Your task to perform on an android device: set the timer Image 0: 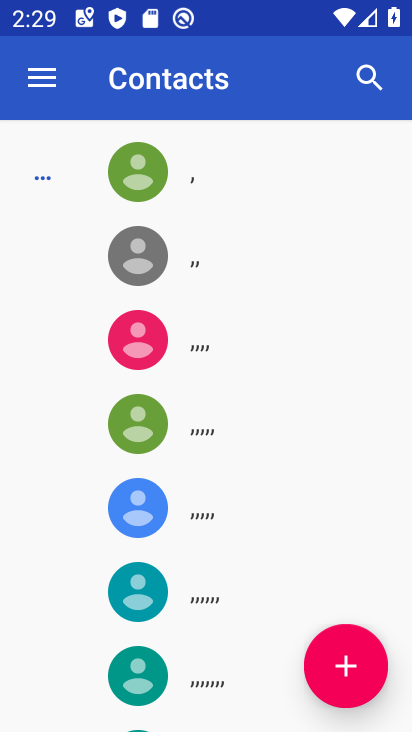
Step 0: press home button
Your task to perform on an android device: set the timer Image 1: 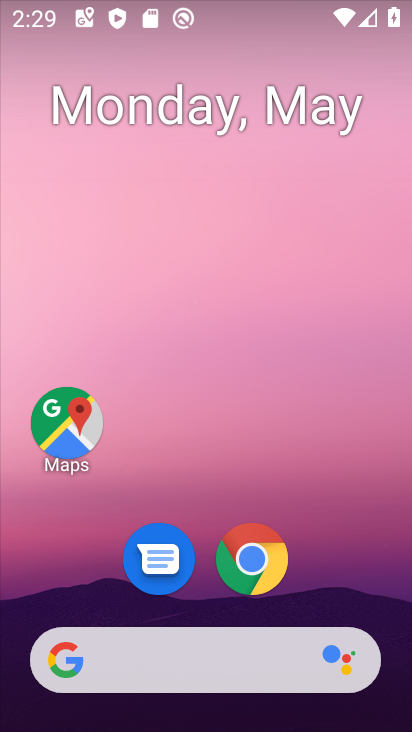
Step 1: drag from (233, 722) to (322, 108)
Your task to perform on an android device: set the timer Image 2: 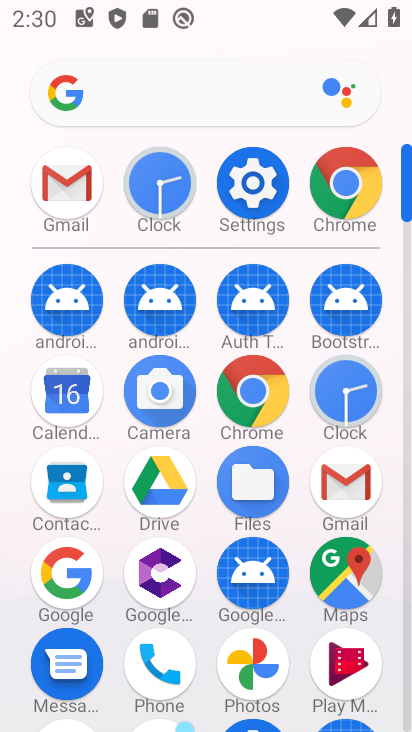
Step 2: click (342, 410)
Your task to perform on an android device: set the timer Image 3: 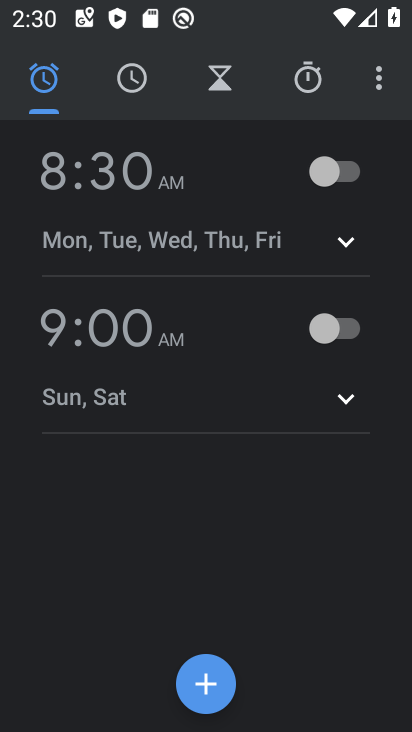
Step 3: click (220, 82)
Your task to perform on an android device: set the timer Image 4: 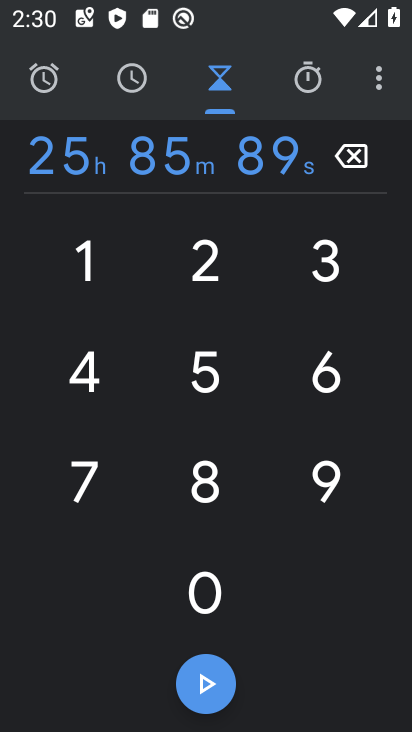
Step 4: click (207, 267)
Your task to perform on an android device: set the timer Image 5: 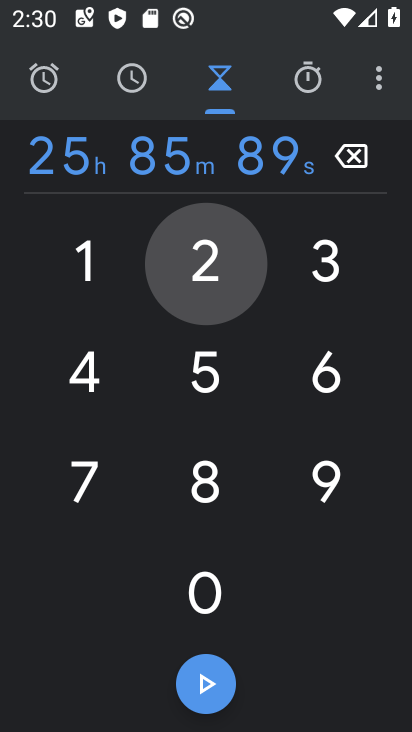
Step 5: click (226, 363)
Your task to perform on an android device: set the timer Image 6: 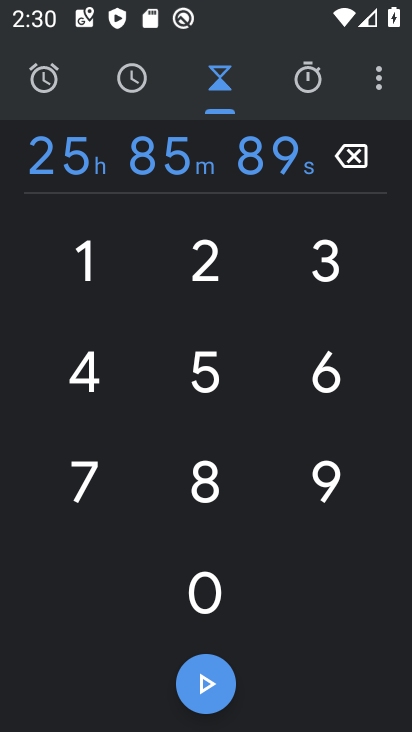
Step 6: task complete